Your task to perform on an android device: open chrome and create a bookmark for the current page Image 0: 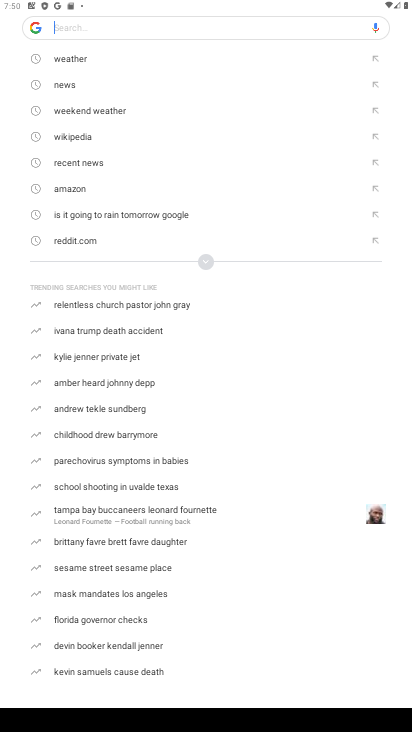
Step 0: press back button
Your task to perform on an android device: open chrome and create a bookmark for the current page Image 1: 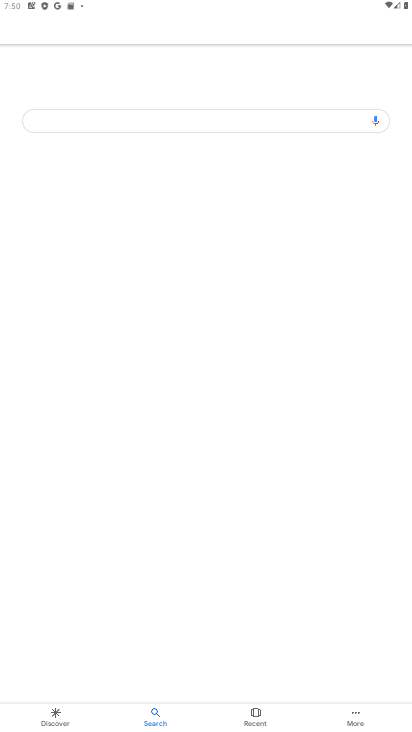
Step 1: press back button
Your task to perform on an android device: open chrome and create a bookmark for the current page Image 2: 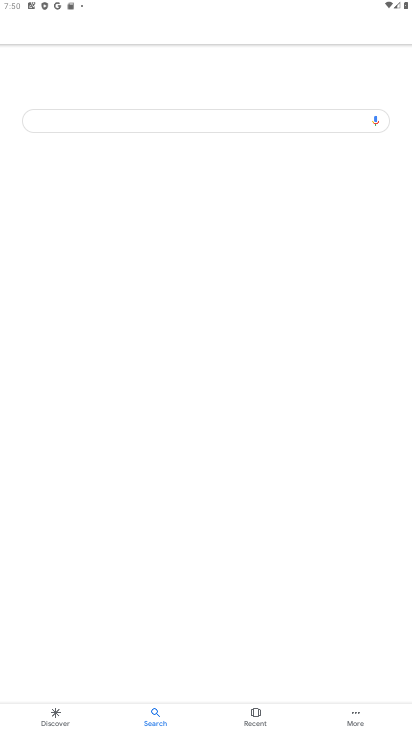
Step 2: press back button
Your task to perform on an android device: open chrome and create a bookmark for the current page Image 3: 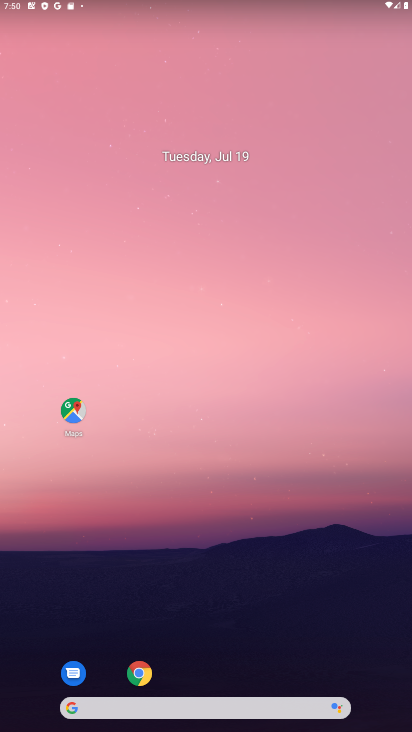
Step 3: click (142, 660)
Your task to perform on an android device: open chrome and create a bookmark for the current page Image 4: 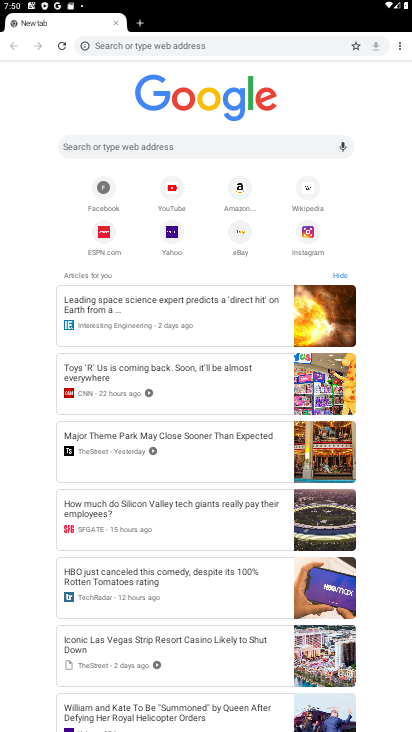
Step 4: click (402, 42)
Your task to perform on an android device: open chrome and create a bookmark for the current page Image 5: 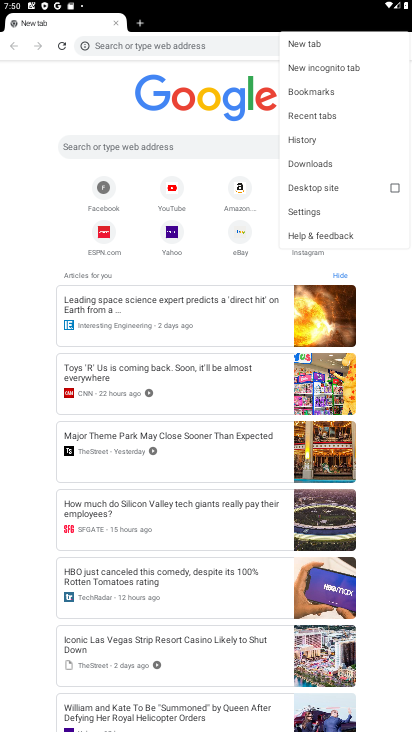
Step 5: click (308, 211)
Your task to perform on an android device: open chrome and create a bookmark for the current page Image 6: 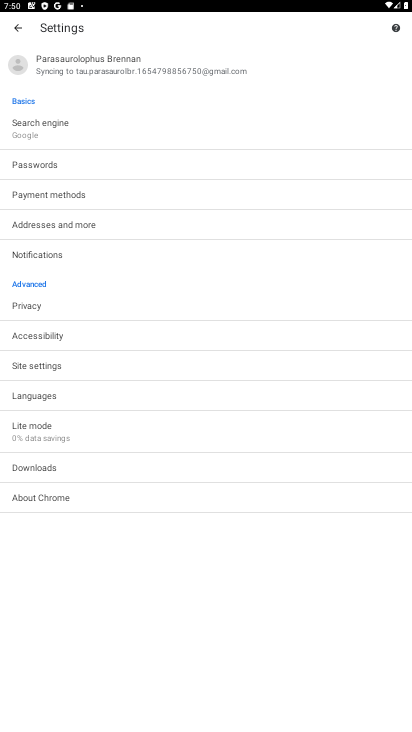
Step 6: click (12, 27)
Your task to perform on an android device: open chrome and create a bookmark for the current page Image 7: 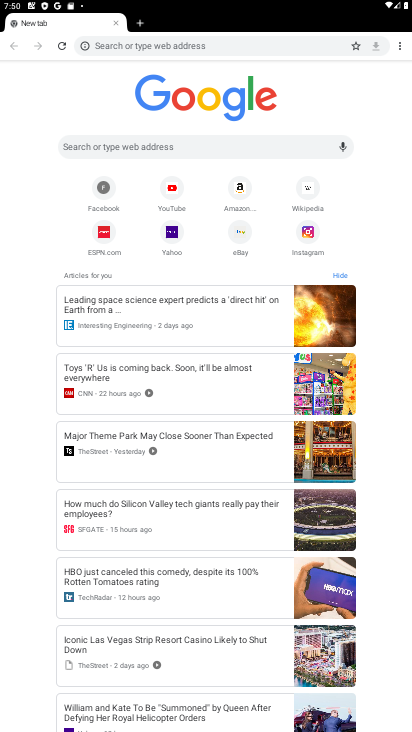
Step 7: click (347, 48)
Your task to perform on an android device: open chrome and create a bookmark for the current page Image 8: 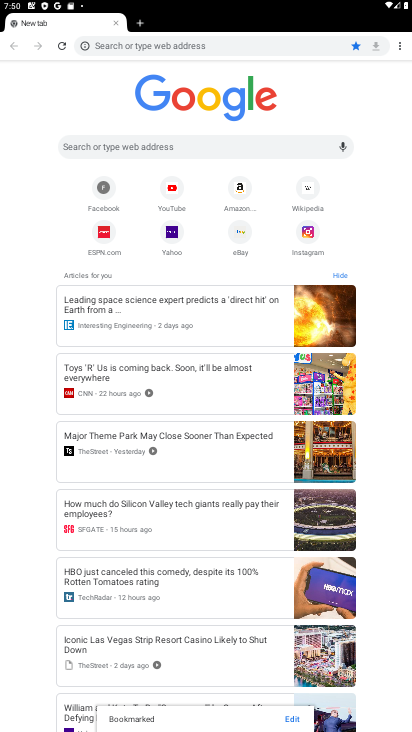
Step 8: task complete